Your task to perform on an android device: Clear all items from cart on target.com. Add "logitech g pro" to the cart on target.com Image 0: 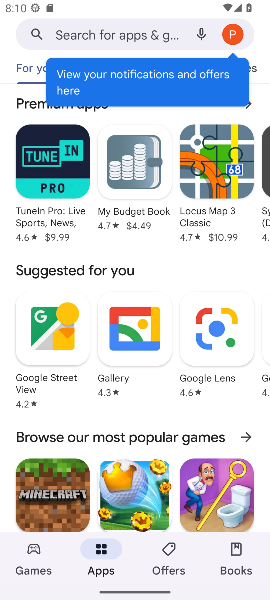
Step 0: press home button
Your task to perform on an android device: Clear all items from cart on target.com. Add "logitech g pro" to the cart on target.com Image 1: 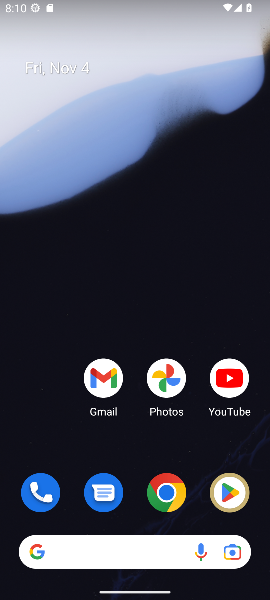
Step 1: drag from (134, 448) to (143, 75)
Your task to perform on an android device: Clear all items from cart on target.com. Add "logitech g pro" to the cart on target.com Image 2: 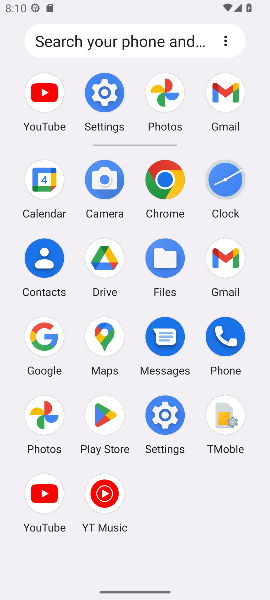
Step 2: click (164, 182)
Your task to perform on an android device: Clear all items from cart on target.com. Add "logitech g pro" to the cart on target.com Image 3: 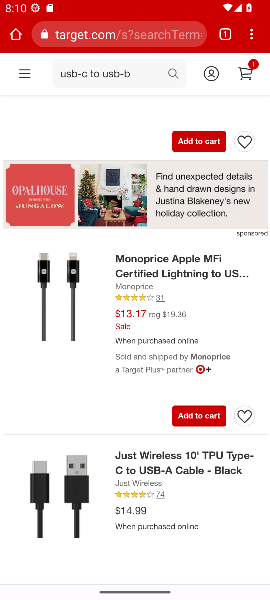
Step 3: click (140, 29)
Your task to perform on an android device: Clear all items from cart on target.com. Add "logitech g pro" to the cart on target.com Image 4: 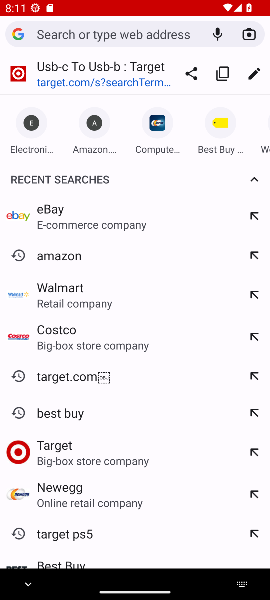
Step 4: type "target.com"
Your task to perform on an android device: Clear all items from cart on target.com. Add "logitech g pro" to the cart on target.com Image 5: 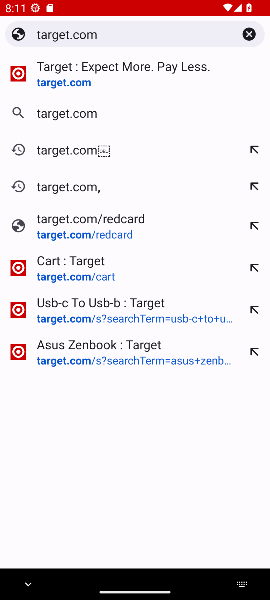
Step 5: press enter
Your task to perform on an android device: Clear all items from cart on target.com. Add "logitech g pro" to the cart on target.com Image 6: 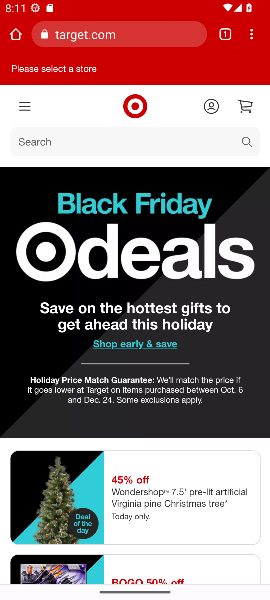
Step 6: click (249, 104)
Your task to perform on an android device: Clear all items from cart on target.com. Add "logitech g pro" to the cart on target.com Image 7: 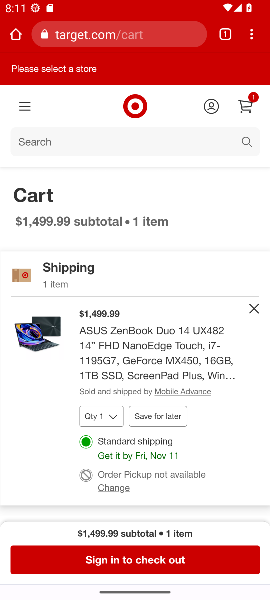
Step 7: drag from (146, 480) to (153, 306)
Your task to perform on an android device: Clear all items from cart on target.com. Add "logitech g pro" to the cart on target.com Image 8: 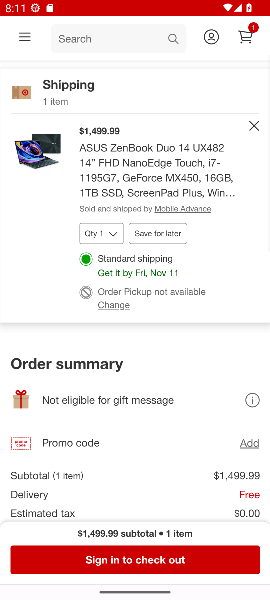
Step 8: click (256, 125)
Your task to perform on an android device: Clear all items from cart on target.com. Add "logitech g pro" to the cart on target.com Image 9: 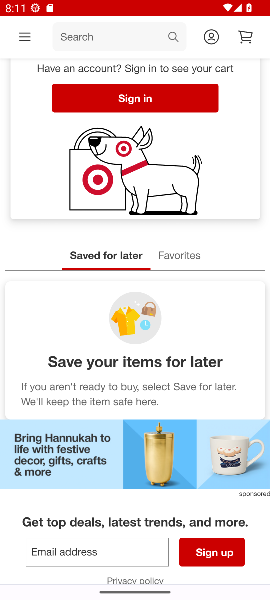
Step 9: click (137, 54)
Your task to perform on an android device: Clear all items from cart on target.com. Add "logitech g pro" to the cart on target.com Image 10: 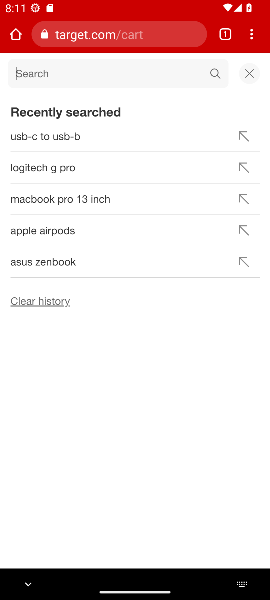
Step 10: type "logitech g pro"
Your task to perform on an android device: Clear all items from cart on target.com. Add "logitech g pro" to the cart on target.com Image 11: 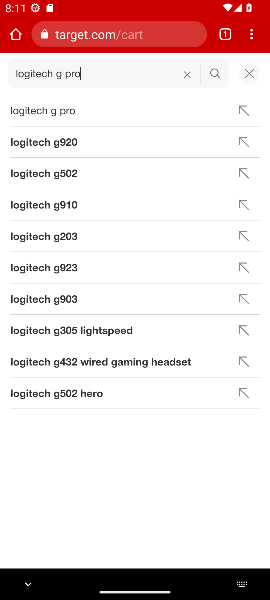
Step 11: press enter
Your task to perform on an android device: Clear all items from cart on target.com. Add "logitech g pro" to the cart on target.com Image 12: 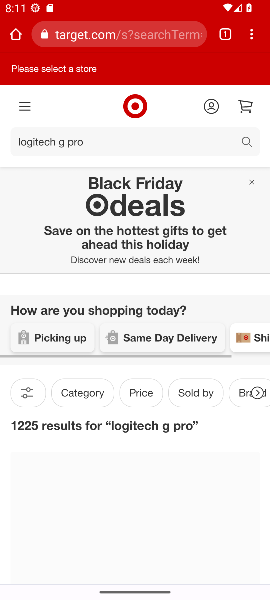
Step 12: task complete